Your task to perform on an android device: Go to privacy settings Image 0: 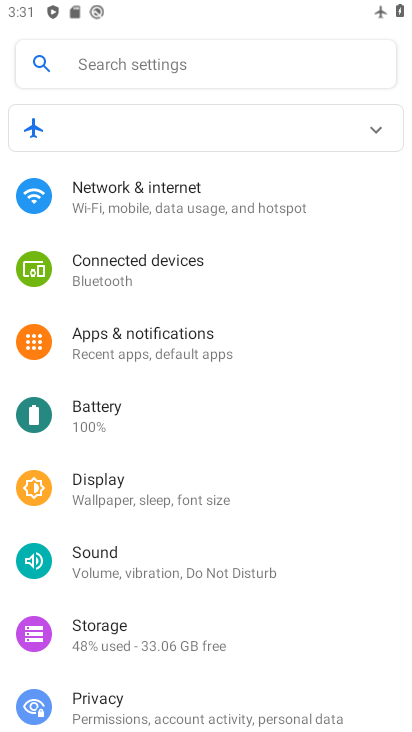
Step 0: click (93, 714)
Your task to perform on an android device: Go to privacy settings Image 1: 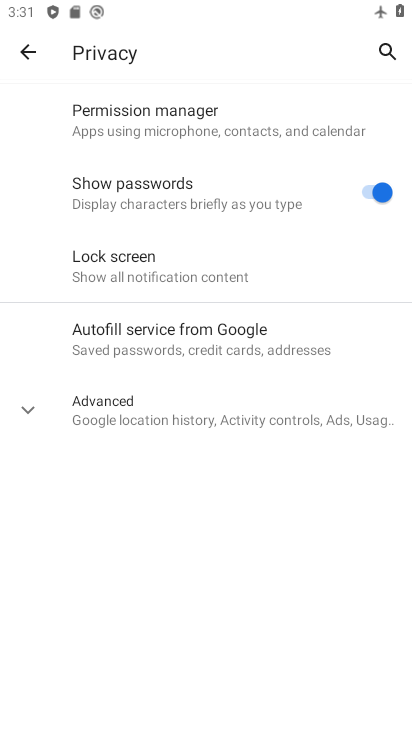
Step 1: click (103, 408)
Your task to perform on an android device: Go to privacy settings Image 2: 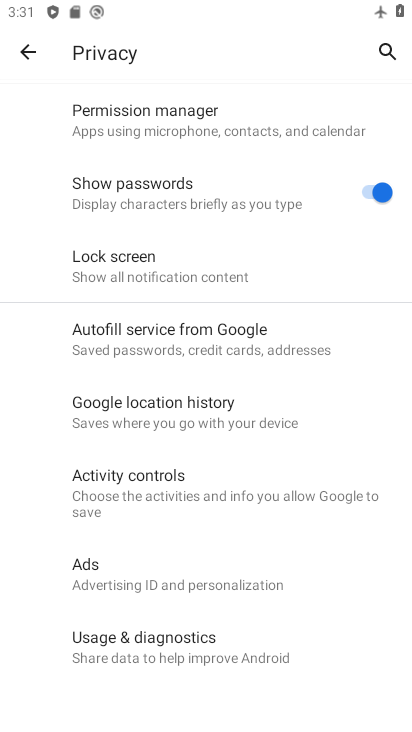
Step 2: task complete